Your task to perform on an android device: Turn off the flashlight Image 0: 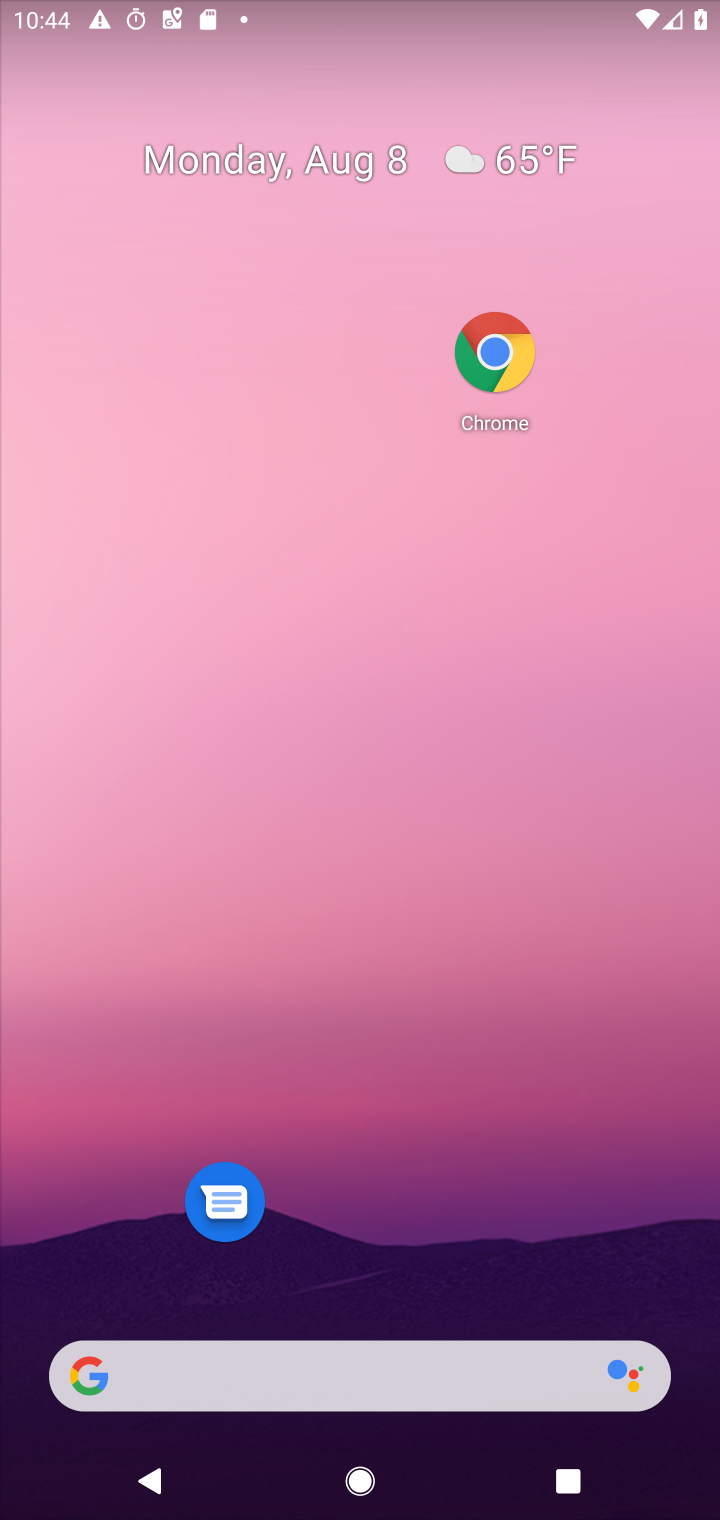
Step 0: drag from (431, 1247) to (475, 590)
Your task to perform on an android device: Turn off the flashlight Image 1: 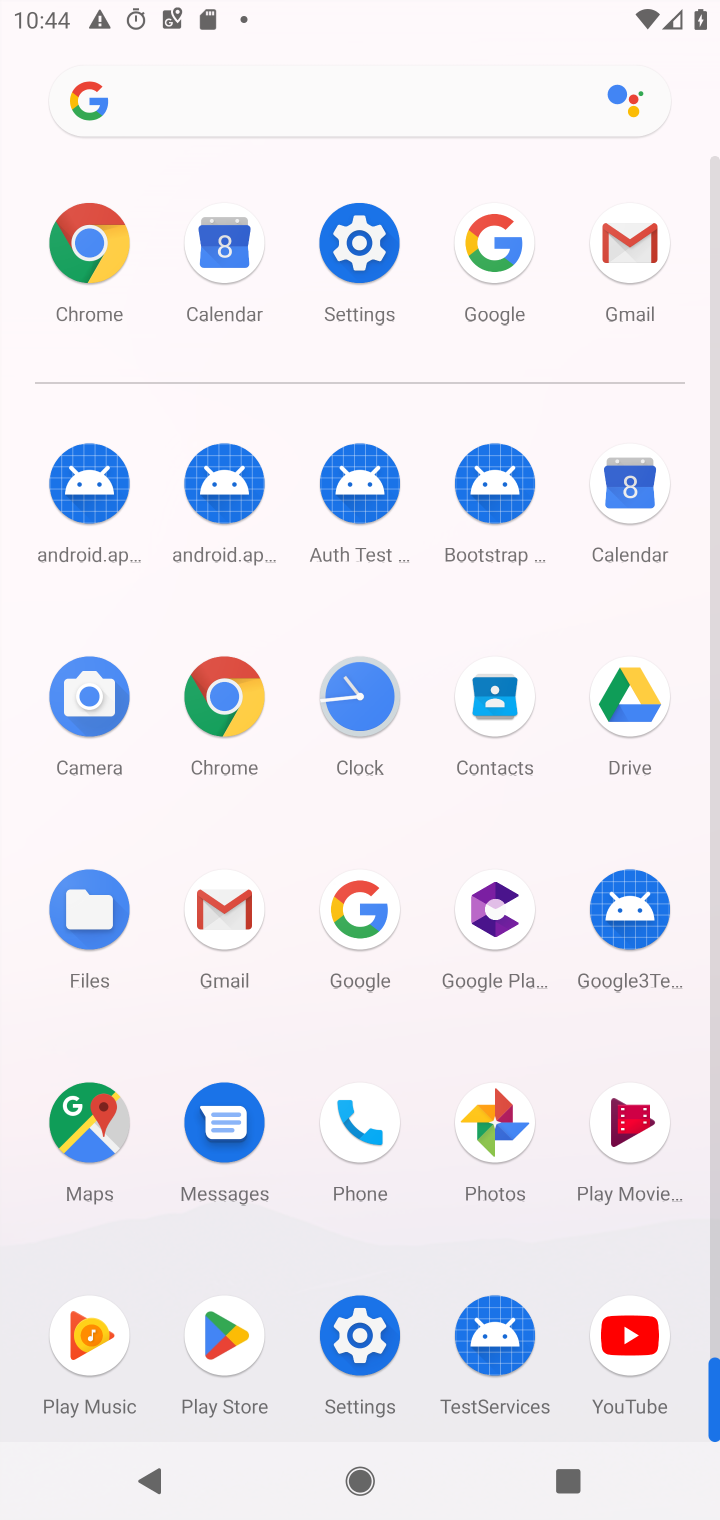
Step 1: task complete